Your task to perform on an android device: open a new tab in the chrome app Image 0: 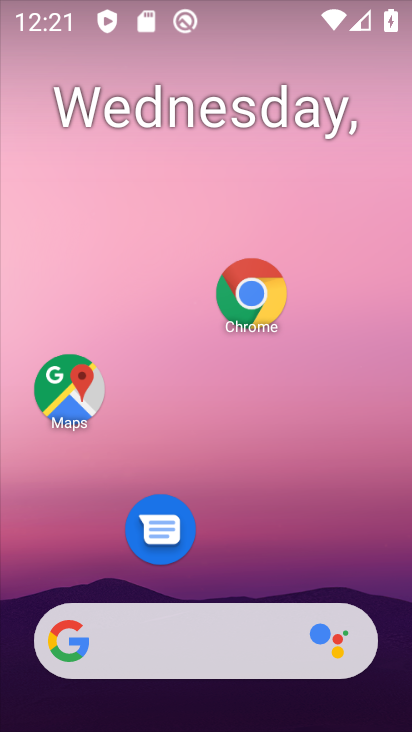
Step 0: click (289, 405)
Your task to perform on an android device: open a new tab in the chrome app Image 1: 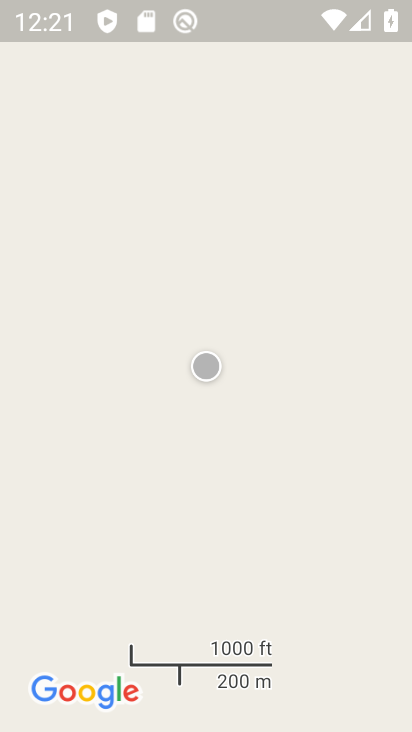
Step 1: press home button
Your task to perform on an android device: open a new tab in the chrome app Image 2: 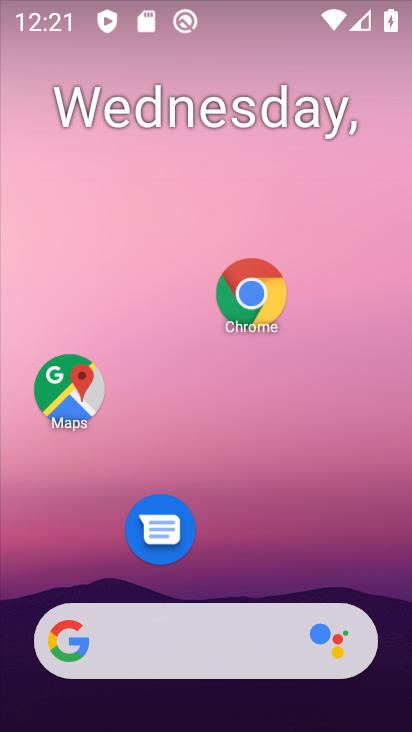
Step 2: drag from (289, 560) to (325, 339)
Your task to perform on an android device: open a new tab in the chrome app Image 3: 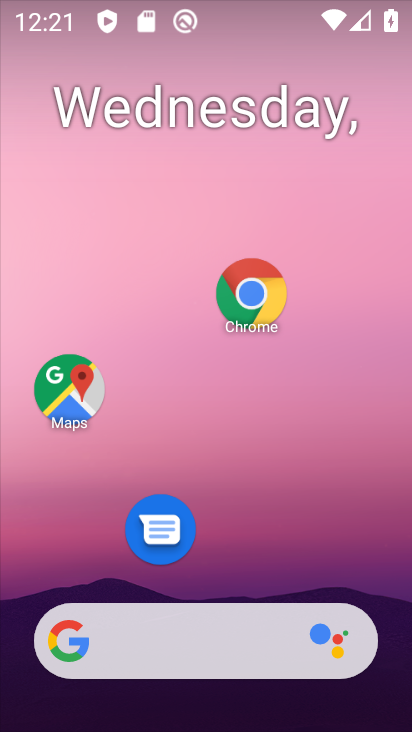
Step 3: click (259, 317)
Your task to perform on an android device: open a new tab in the chrome app Image 4: 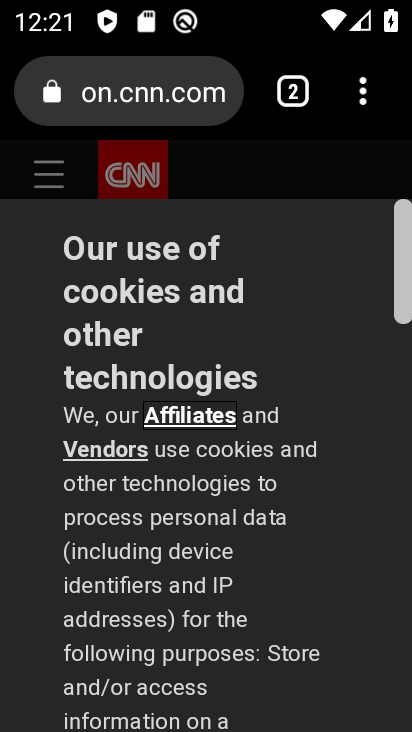
Step 4: drag from (305, 105) to (288, 156)
Your task to perform on an android device: open a new tab in the chrome app Image 5: 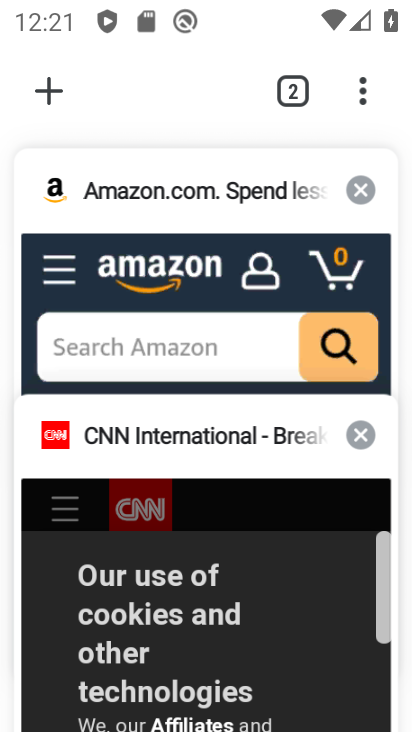
Step 5: click (55, 91)
Your task to perform on an android device: open a new tab in the chrome app Image 6: 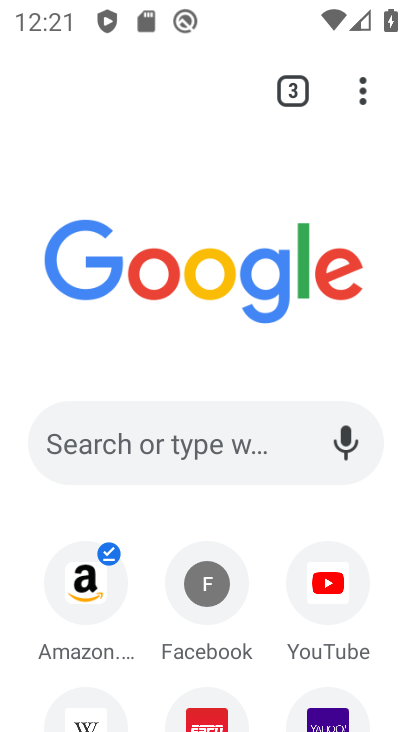
Step 6: task complete